Your task to perform on an android device: see sites visited before in the chrome app Image 0: 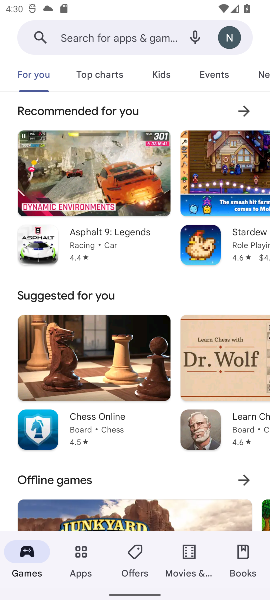
Step 0: press home button
Your task to perform on an android device: see sites visited before in the chrome app Image 1: 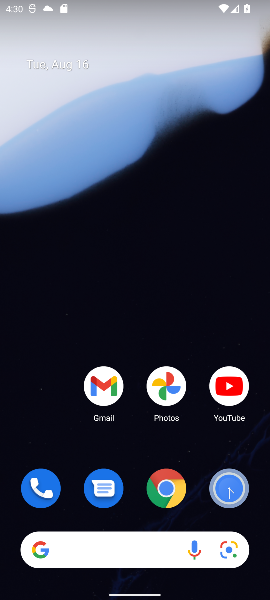
Step 1: task complete